Your task to perform on an android device: What's on my calendar today? Image 0: 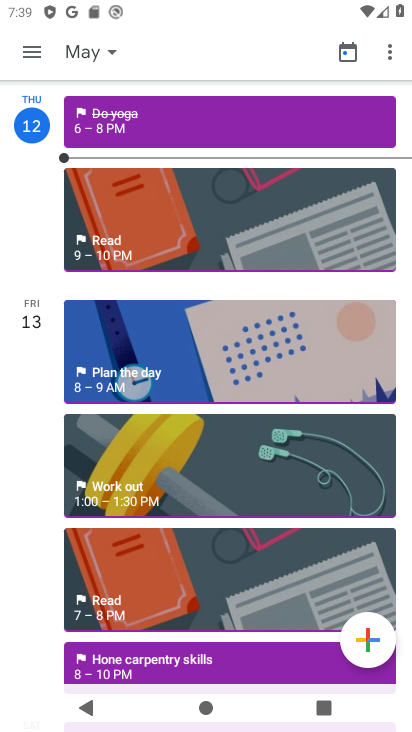
Step 0: press home button
Your task to perform on an android device: What's on my calendar today? Image 1: 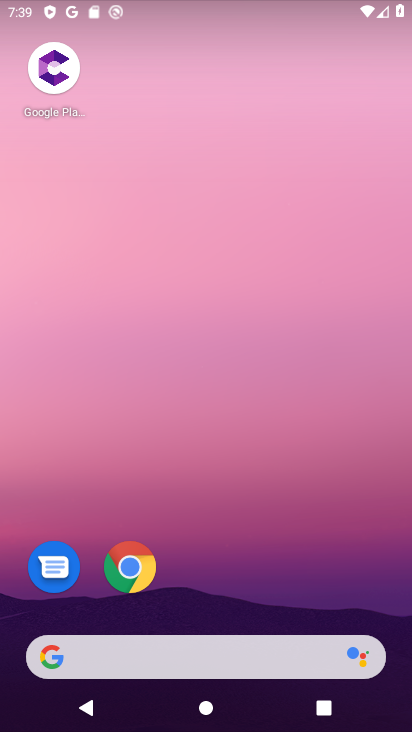
Step 1: drag from (240, 582) to (229, 135)
Your task to perform on an android device: What's on my calendar today? Image 2: 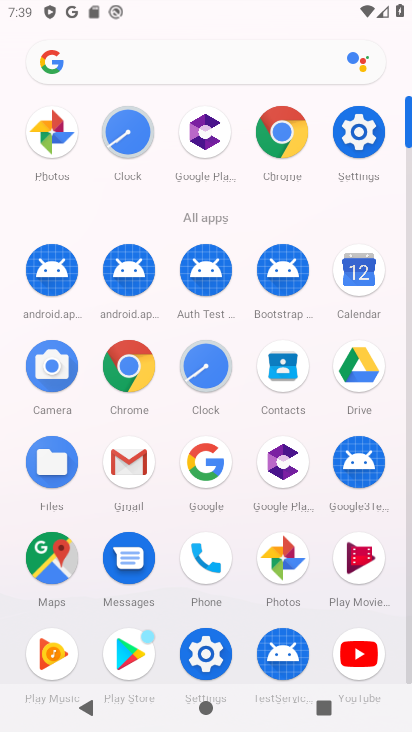
Step 2: click (379, 288)
Your task to perform on an android device: What's on my calendar today? Image 3: 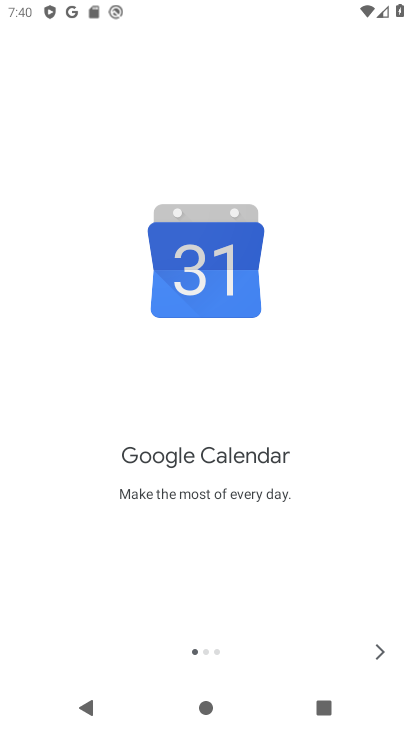
Step 3: click (394, 662)
Your task to perform on an android device: What's on my calendar today? Image 4: 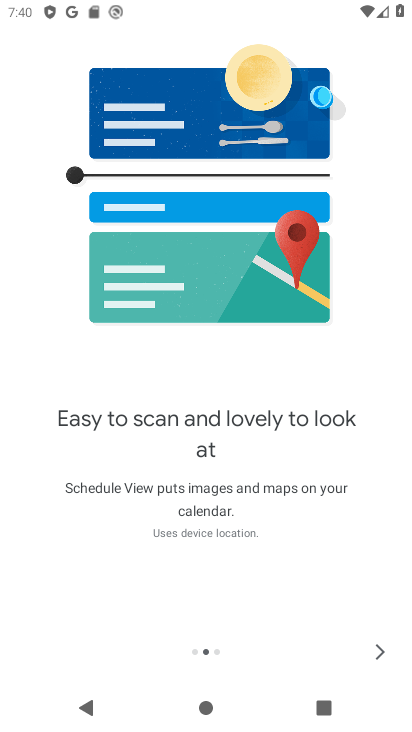
Step 4: click (386, 647)
Your task to perform on an android device: What's on my calendar today? Image 5: 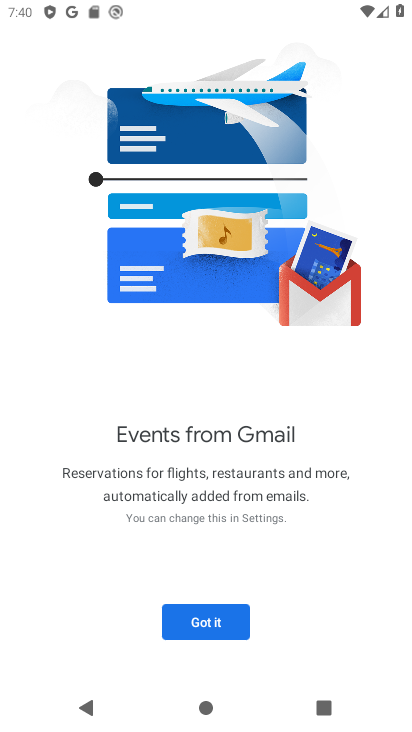
Step 5: click (212, 629)
Your task to perform on an android device: What's on my calendar today? Image 6: 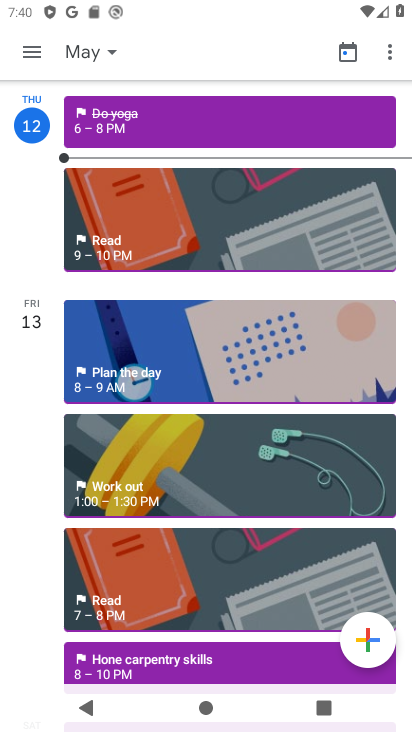
Step 6: task complete